Your task to perform on an android device: toggle location history Image 0: 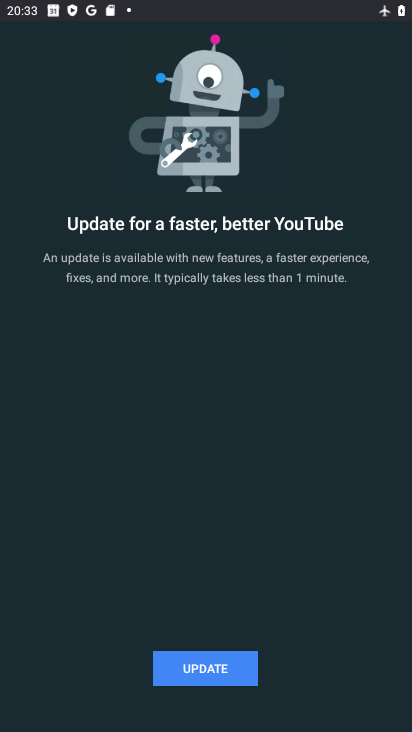
Step 0: press home button
Your task to perform on an android device: toggle location history Image 1: 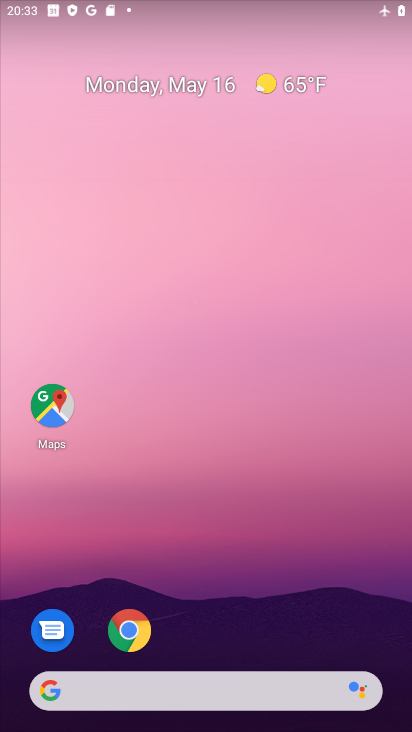
Step 1: drag from (203, 632) to (211, 208)
Your task to perform on an android device: toggle location history Image 2: 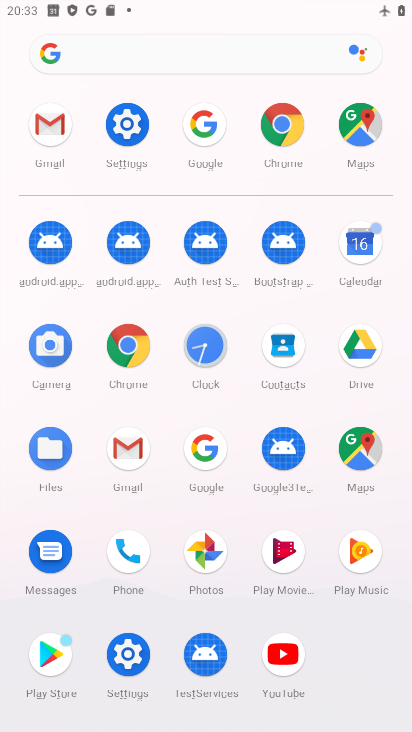
Step 2: click (138, 135)
Your task to perform on an android device: toggle location history Image 3: 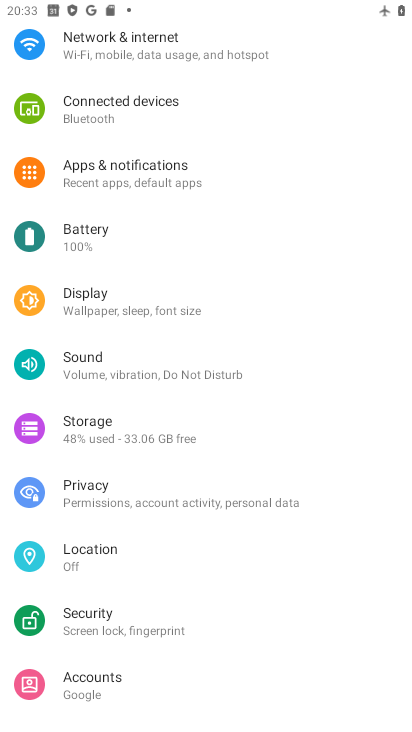
Step 3: click (150, 553)
Your task to perform on an android device: toggle location history Image 4: 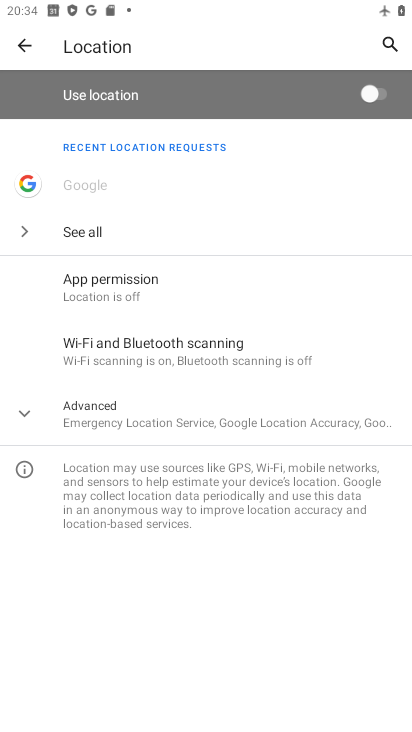
Step 4: click (144, 402)
Your task to perform on an android device: toggle location history Image 5: 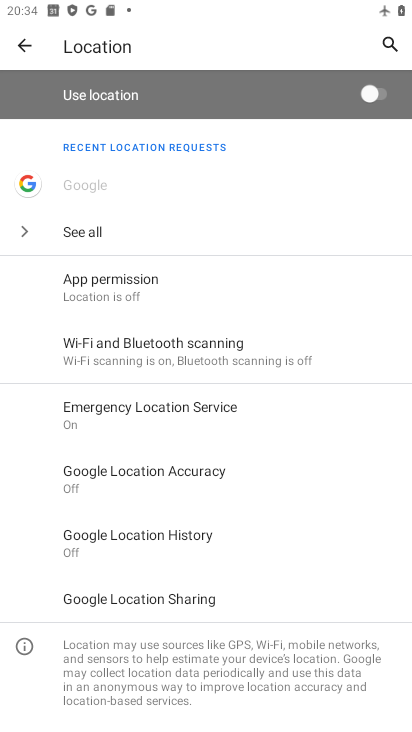
Step 5: click (185, 541)
Your task to perform on an android device: toggle location history Image 6: 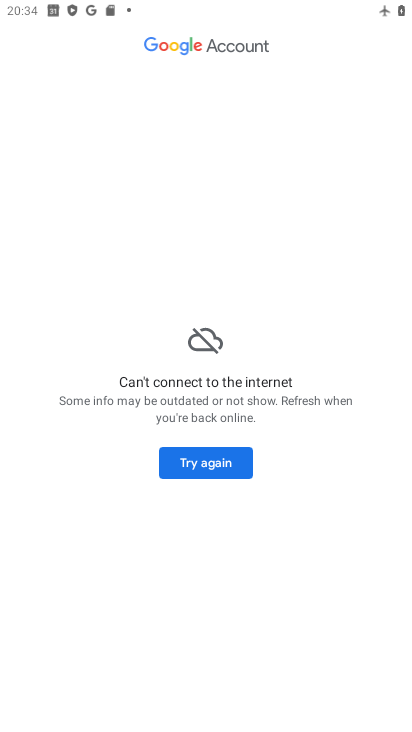
Step 6: task complete